Your task to perform on an android device: allow notifications from all sites in the chrome app Image 0: 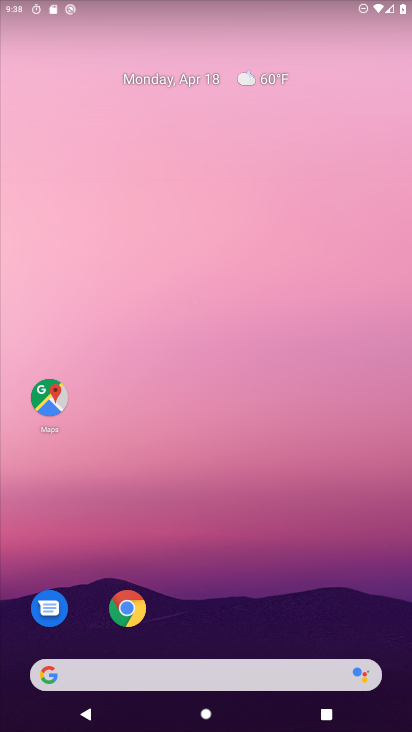
Step 0: click (135, 607)
Your task to perform on an android device: allow notifications from all sites in the chrome app Image 1: 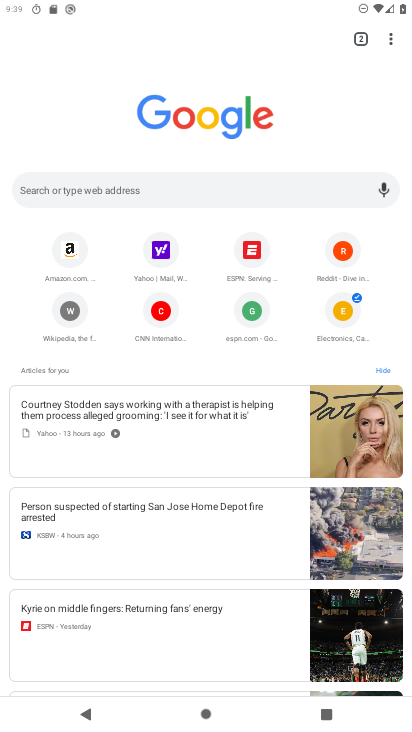
Step 1: click (390, 34)
Your task to perform on an android device: allow notifications from all sites in the chrome app Image 2: 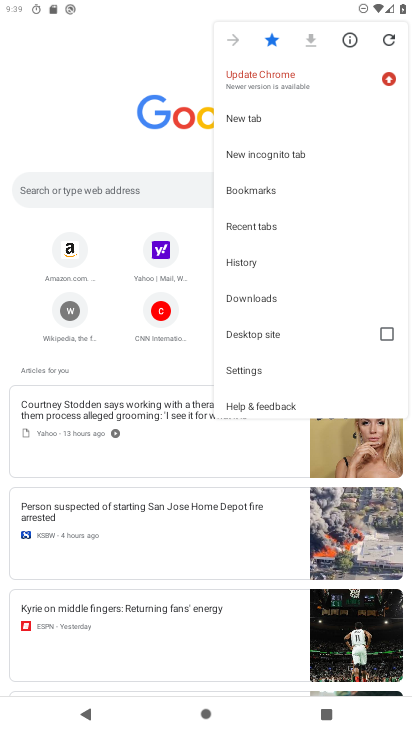
Step 2: click (236, 360)
Your task to perform on an android device: allow notifications from all sites in the chrome app Image 3: 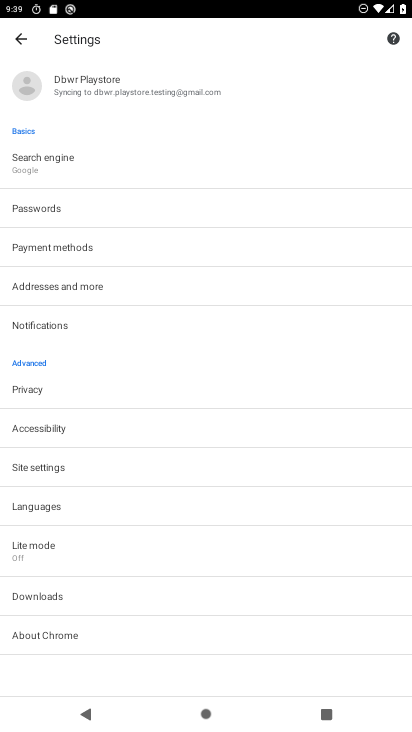
Step 3: click (51, 463)
Your task to perform on an android device: allow notifications from all sites in the chrome app Image 4: 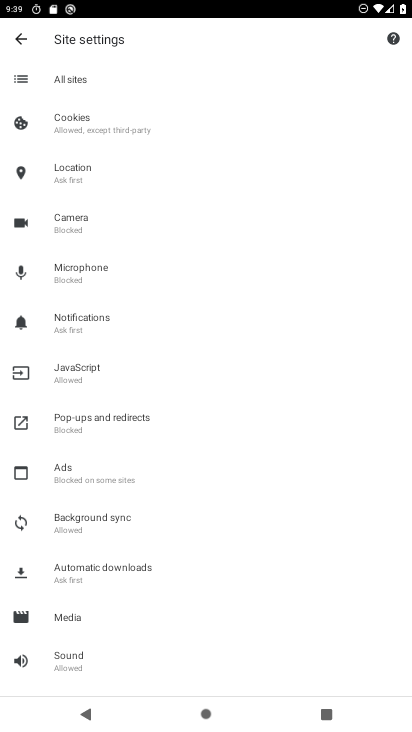
Step 4: click (85, 319)
Your task to perform on an android device: allow notifications from all sites in the chrome app Image 5: 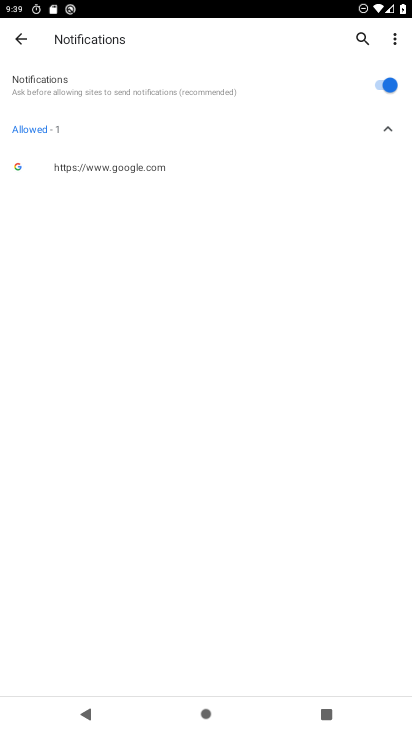
Step 5: task complete